Your task to perform on an android device: Check the news Image 0: 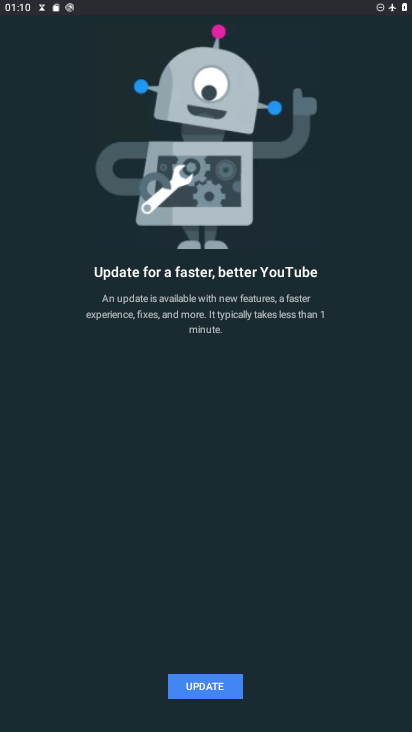
Step 0: press home button
Your task to perform on an android device: Check the news Image 1: 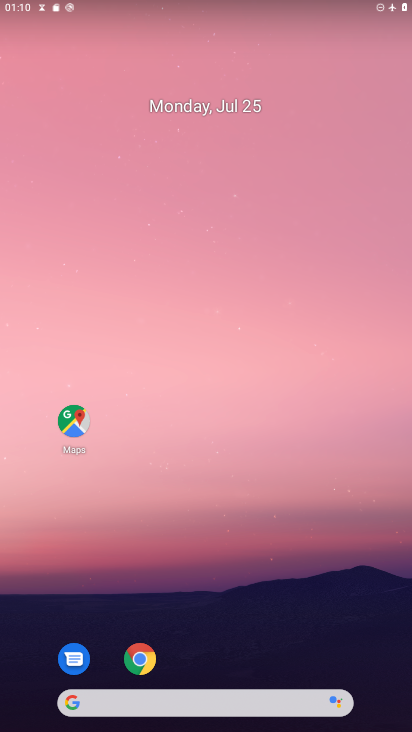
Step 1: click (131, 656)
Your task to perform on an android device: Check the news Image 2: 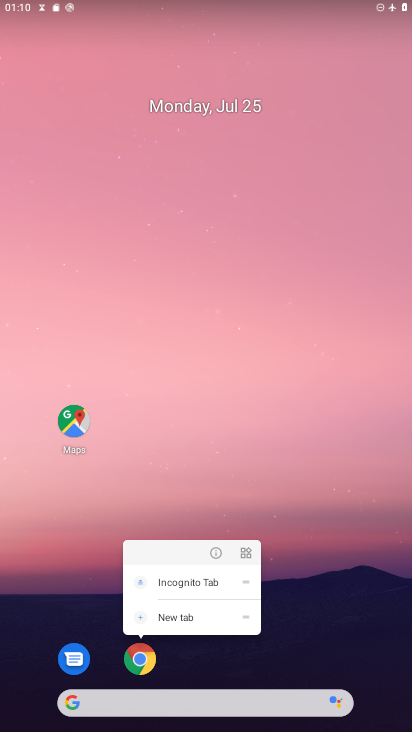
Step 2: click (145, 664)
Your task to perform on an android device: Check the news Image 3: 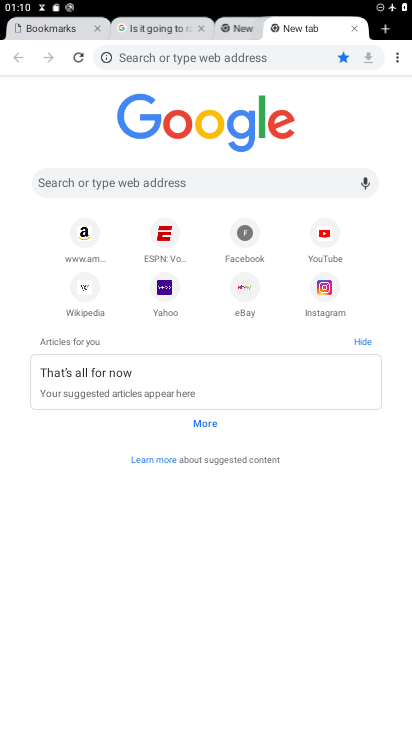
Step 3: click (158, 717)
Your task to perform on an android device: Check the news Image 4: 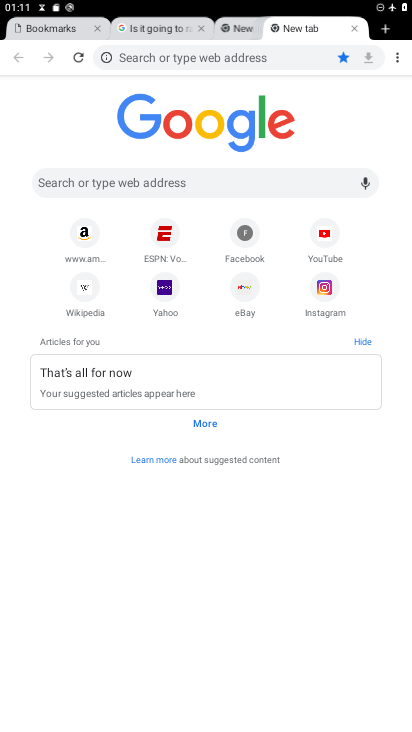
Step 4: click (168, 177)
Your task to perform on an android device: Check the news Image 5: 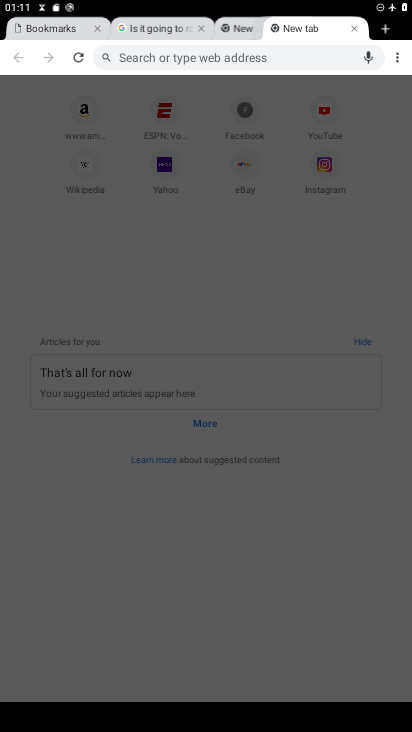
Step 5: type "Check the news "
Your task to perform on an android device: Check the news Image 6: 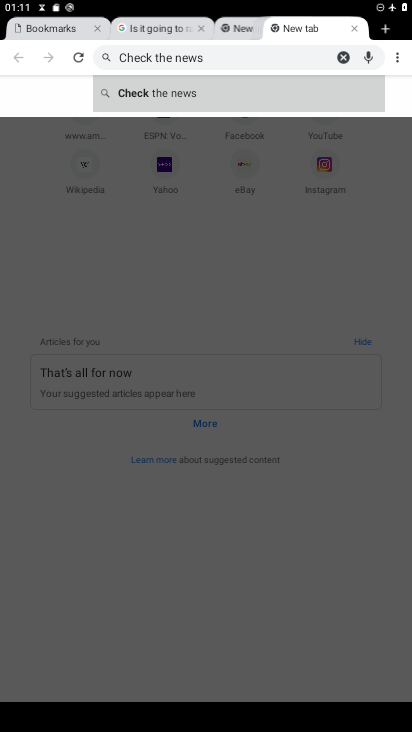
Step 6: click (260, 94)
Your task to perform on an android device: Check the news Image 7: 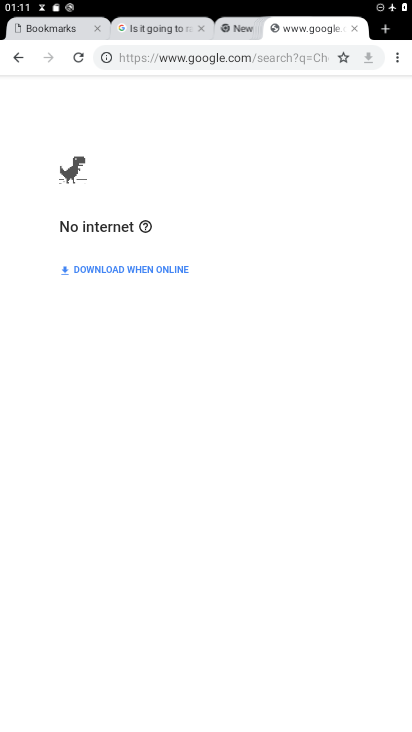
Step 7: task complete